Your task to perform on an android device: open wifi settings Image 0: 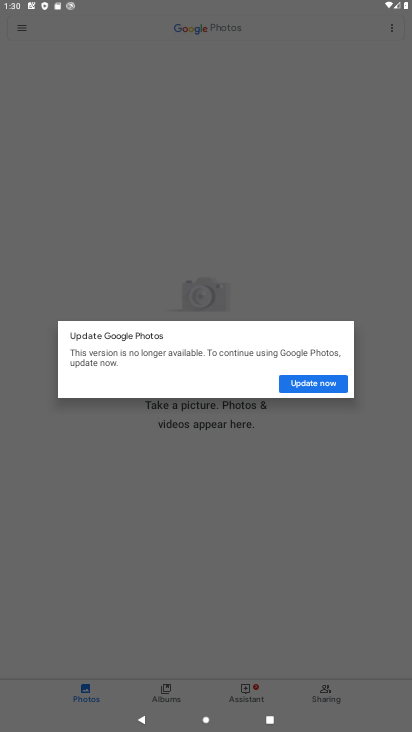
Step 0: click (332, 383)
Your task to perform on an android device: open wifi settings Image 1: 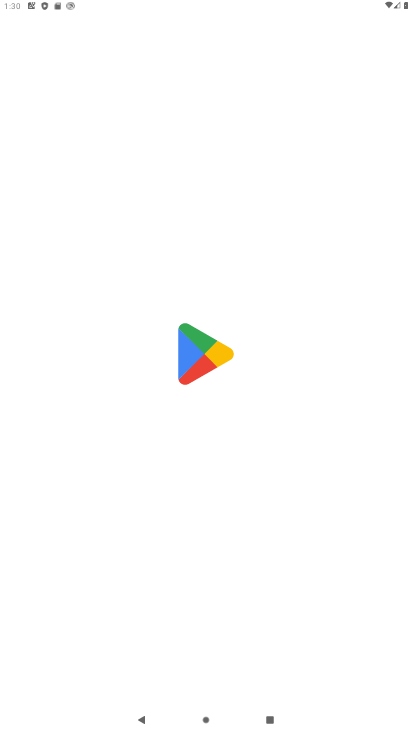
Step 1: press home button
Your task to perform on an android device: open wifi settings Image 2: 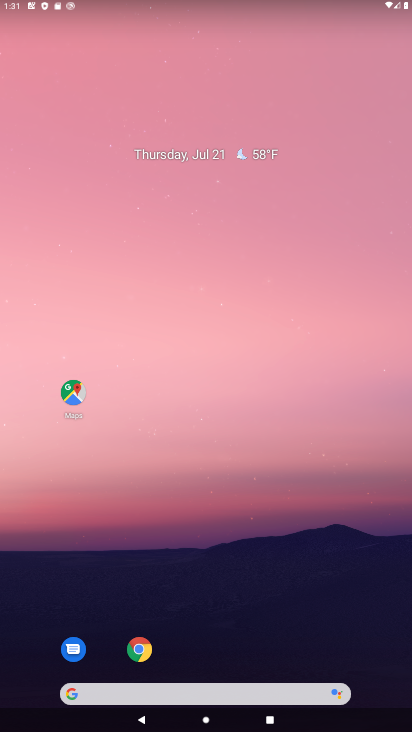
Step 2: drag from (242, 647) to (288, 113)
Your task to perform on an android device: open wifi settings Image 3: 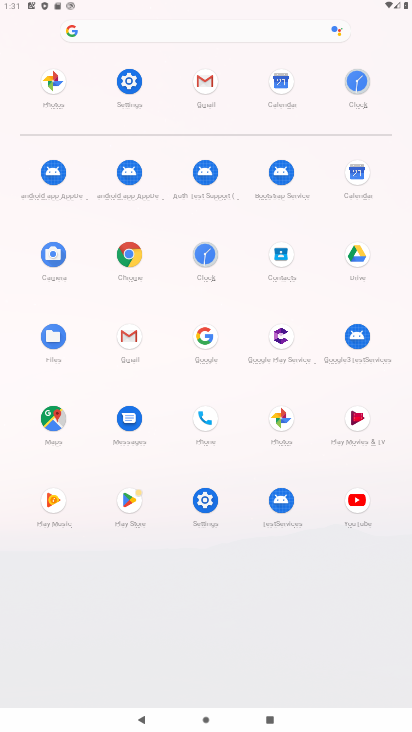
Step 3: click (136, 95)
Your task to perform on an android device: open wifi settings Image 4: 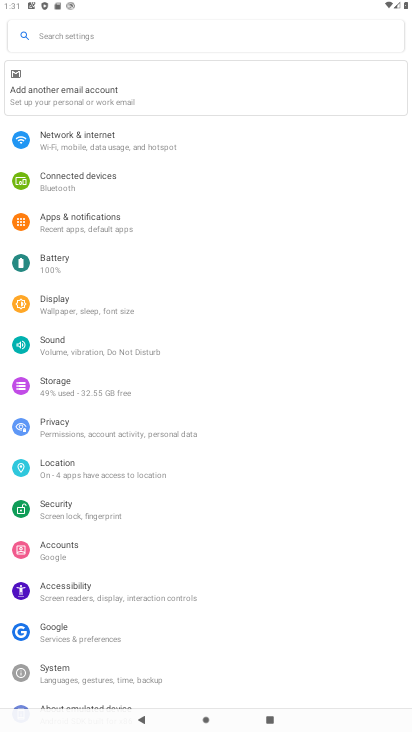
Step 4: click (121, 138)
Your task to perform on an android device: open wifi settings Image 5: 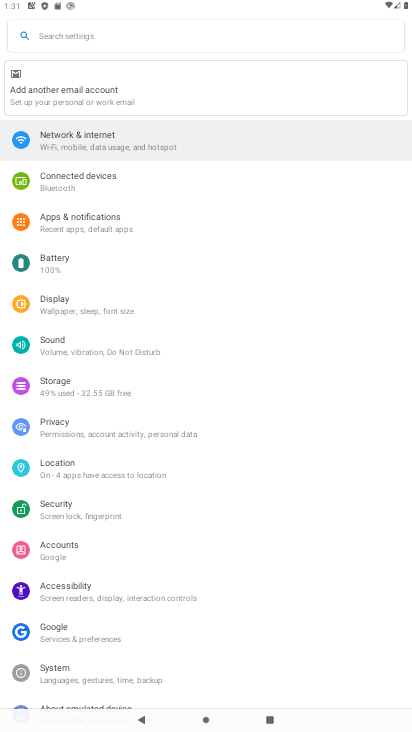
Step 5: task complete